Your task to perform on an android device: turn off picture-in-picture Image 0: 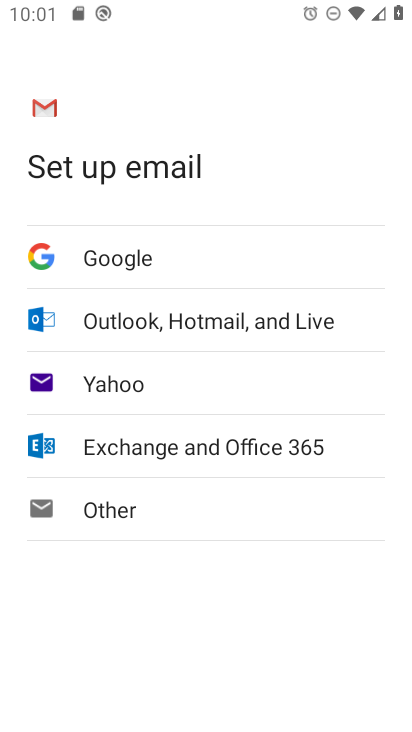
Step 0: press home button
Your task to perform on an android device: turn off picture-in-picture Image 1: 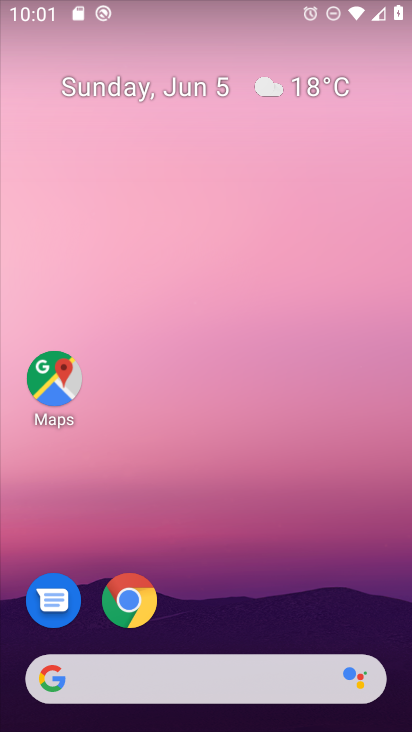
Step 1: click (120, 584)
Your task to perform on an android device: turn off picture-in-picture Image 2: 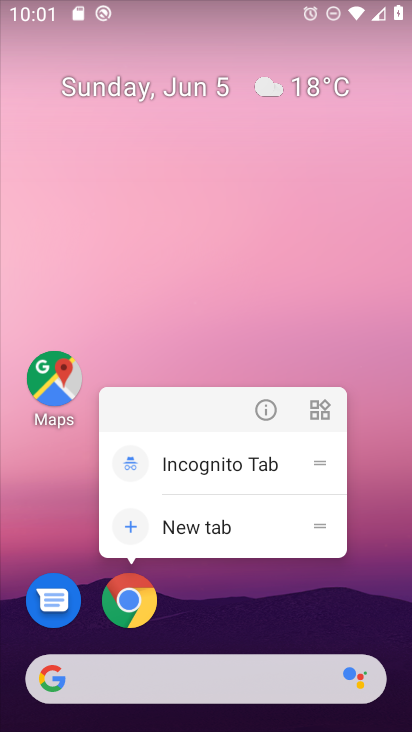
Step 2: click (275, 399)
Your task to perform on an android device: turn off picture-in-picture Image 3: 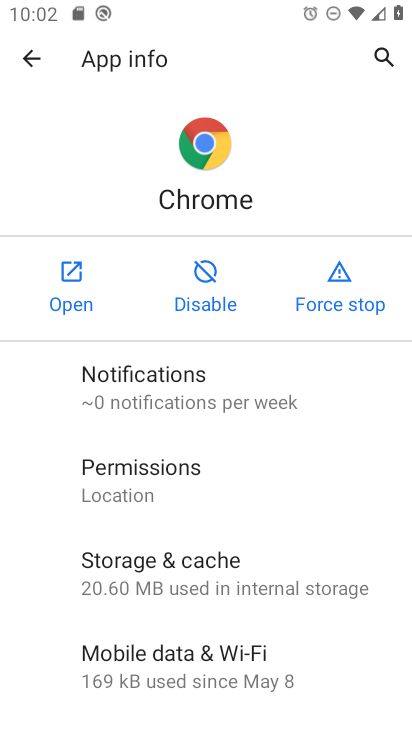
Step 3: drag from (274, 513) to (294, 260)
Your task to perform on an android device: turn off picture-in-picture Image 4: 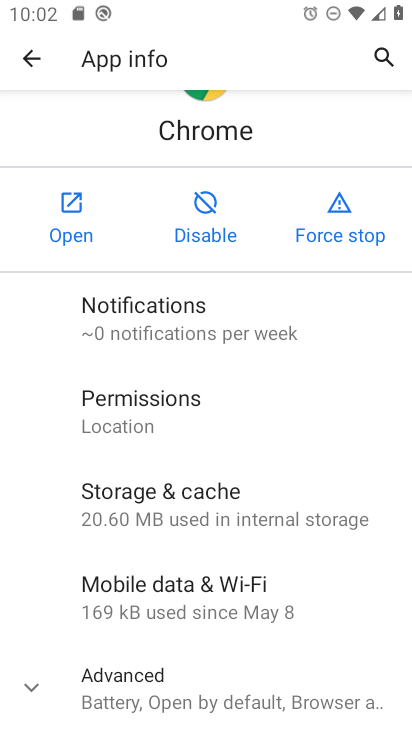
Step 4: click (35, 682)
Your task to perform on an android device: turn off picture-in-picture Image 5: 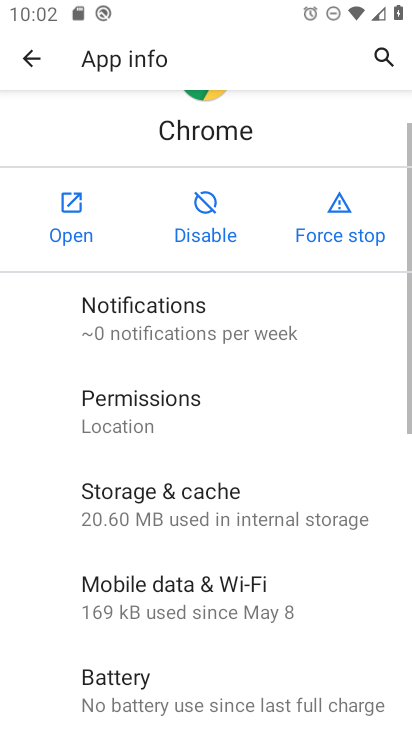
Step 5: drag from (210, 640) to (211, 176)
Your task to perform on an android device: turn off picture-in-picture Image 6: 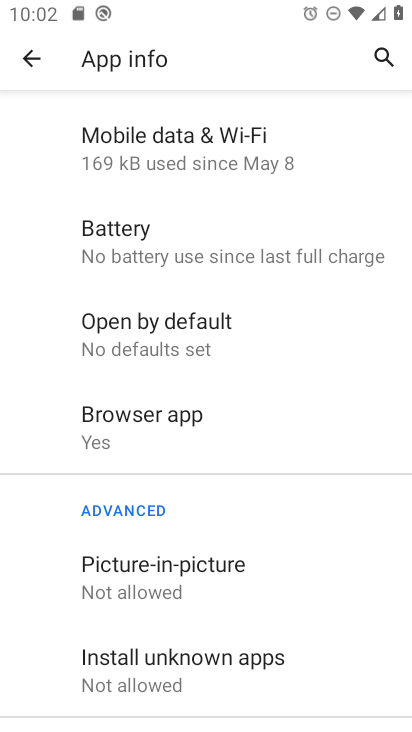
Step 6: click (220, 567)
Your task to perform on an android device: turn off picture-in-picture Image 7: 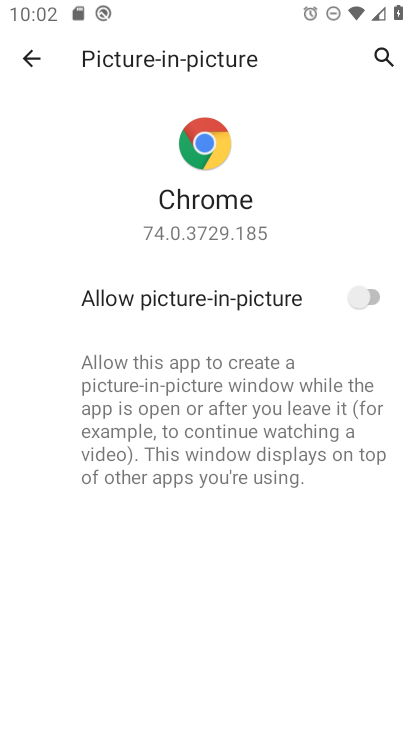
Step 7: task complete